Your task to perform on an android device: Clear all items from cart on target.com. Add dell alienware to the cart on target.com Image 0: 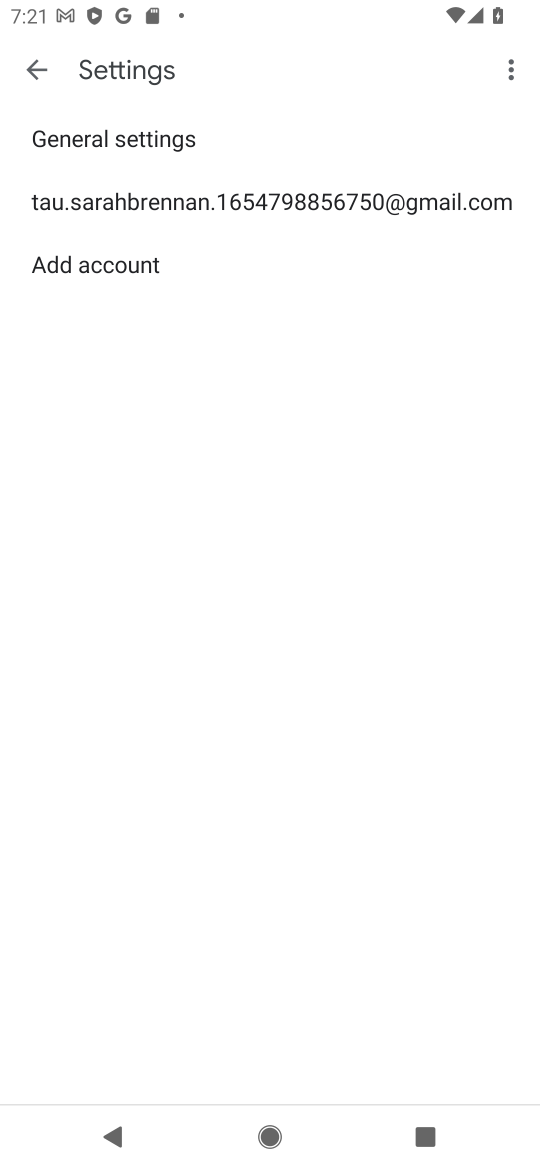
Step 0: press home button
Your task to perform on an android device: Clear all items from cart on target.com. Add dell alienware to the cart on target.com Image 1: 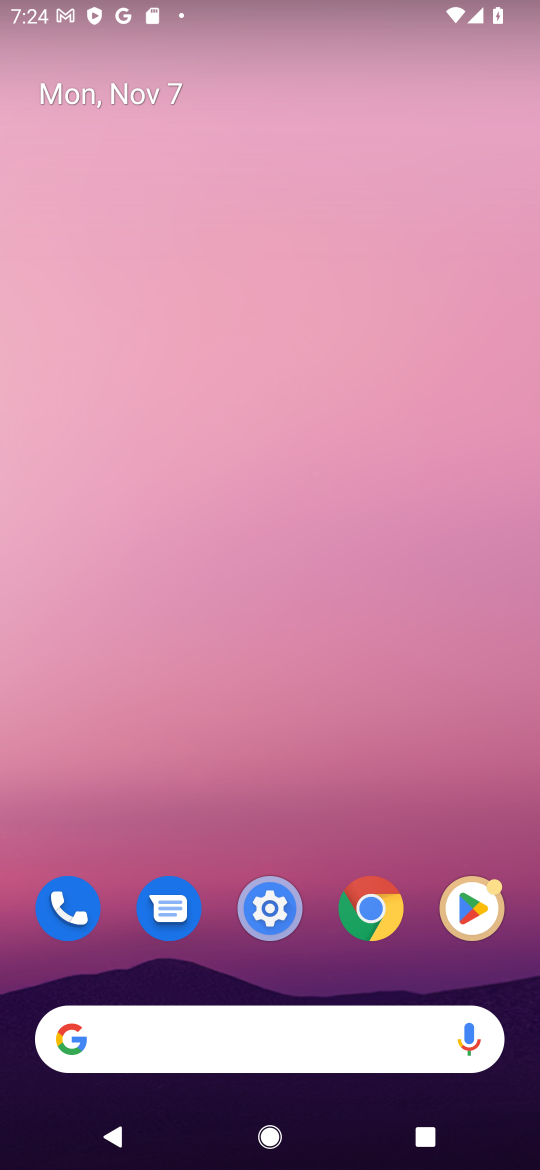
Step 1: click (321, 1056)
Your task to perform on an android device: Clear all items from cart on target.com. Add dell alienware to the cart on target.com Image 2: 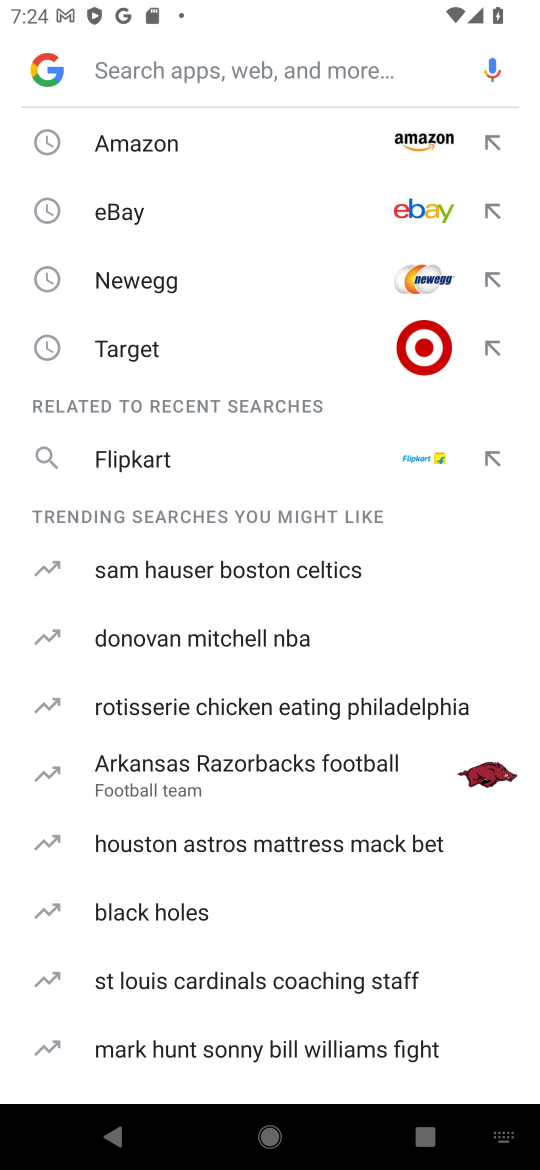
Step 2: click (223, 341)
Your task to perform on an android device: Clear all items from cart on target.com. Add dell alienware to the cart on target.com Image 3: 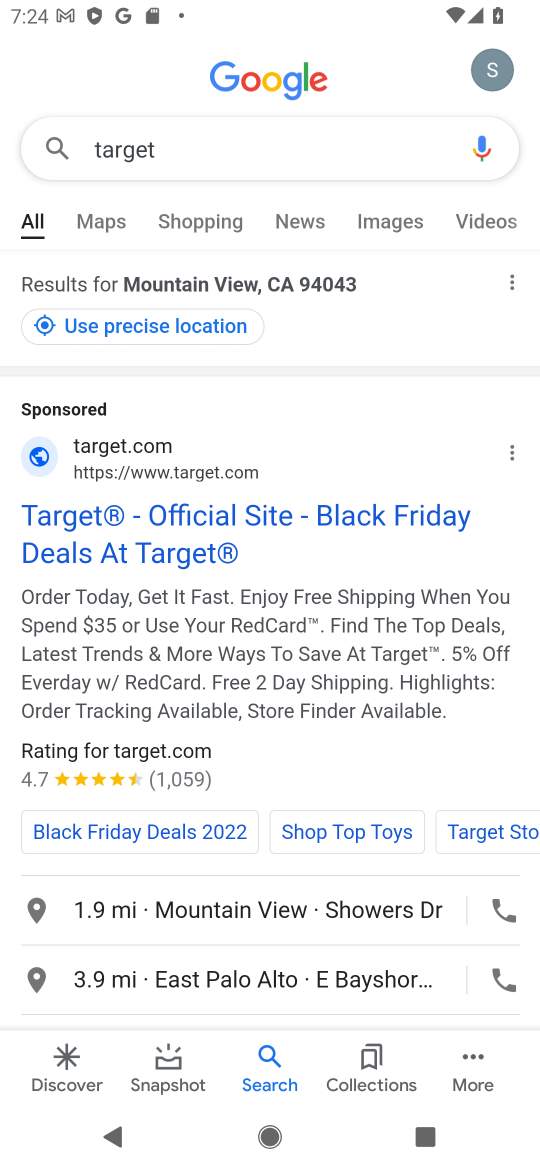
Step 3: click (207, 542)
Your task to perform on an android device: Clear all items from cart on target.com. Add dell alienware to the cart on target.com Image 4: 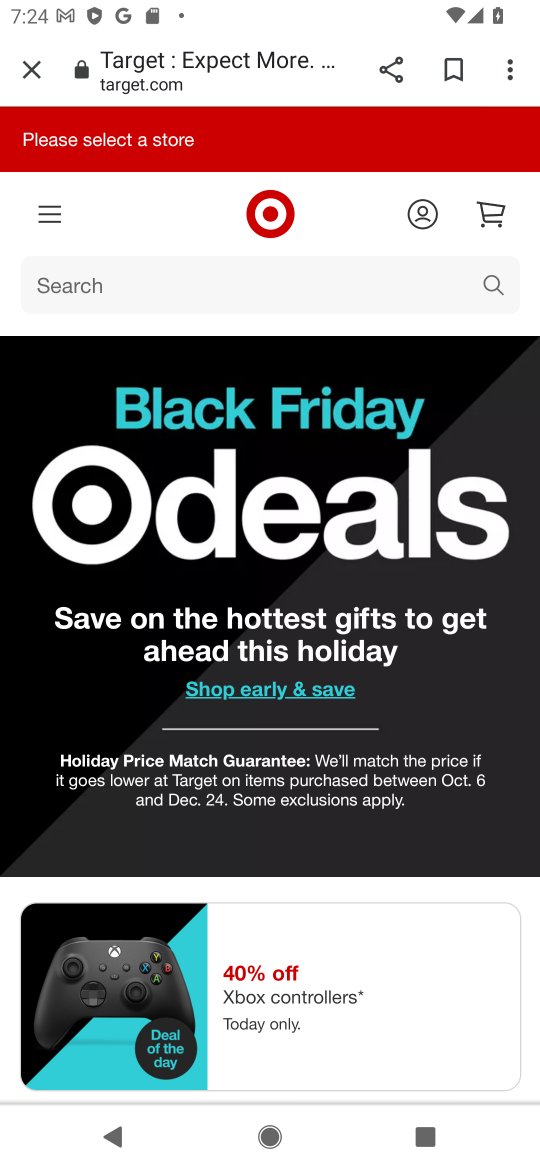
Step 4: task complete